Your task to perform on an android device: turn off location history Image 0: 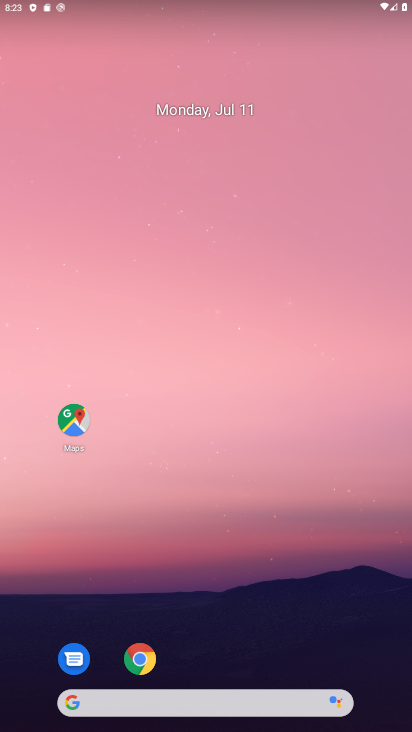
Step 0: drag from (196, 670) to (197, 213)
Your task to perform on an android device: turn off location history Image 1: 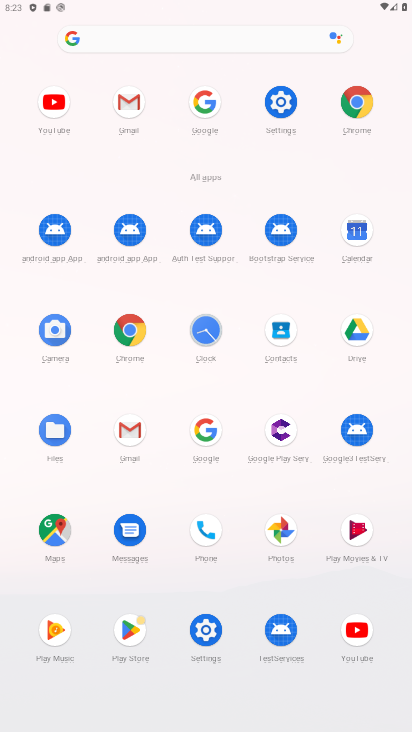
Step 1: click (288, 99)
Your task to perform on an android device: turn off location history Image 2: 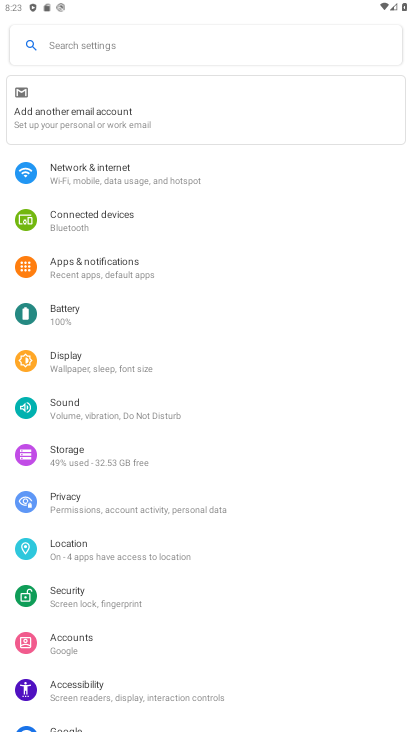
Step 2: click (138, 545)
Your task to perform on an android device: turn off location history Image 3: 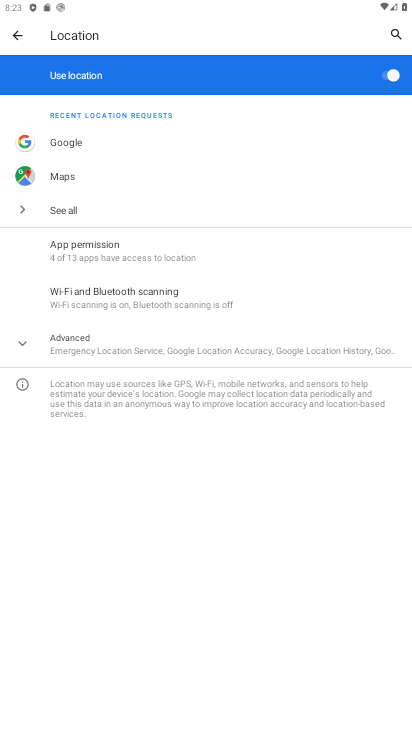
Step 3: click (127, 343)
Your task to perform on an android device: turn off location history Image 4: 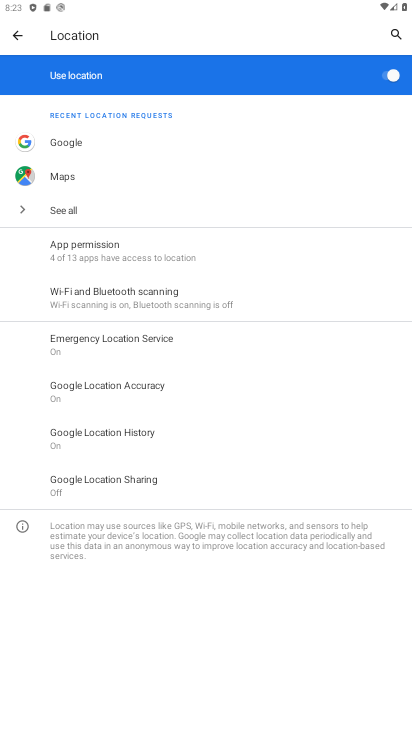
Step 4: click (173, 433)
Your task to perform on an android device: turn off location history Image 5: 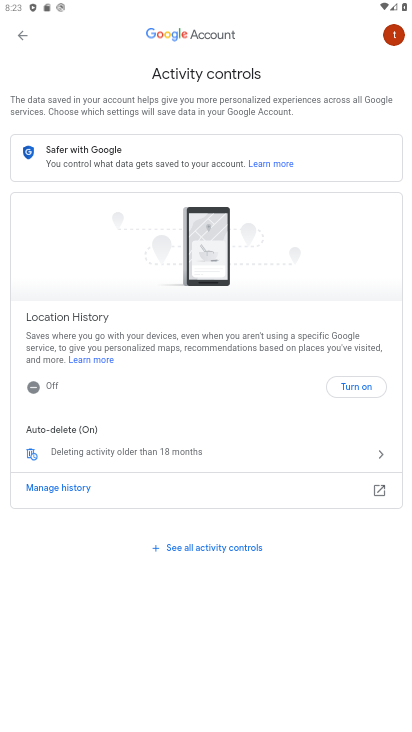
Step 5: task complete